Your task to perform on an android device: manage bookmarks in the chrome app Image 0: 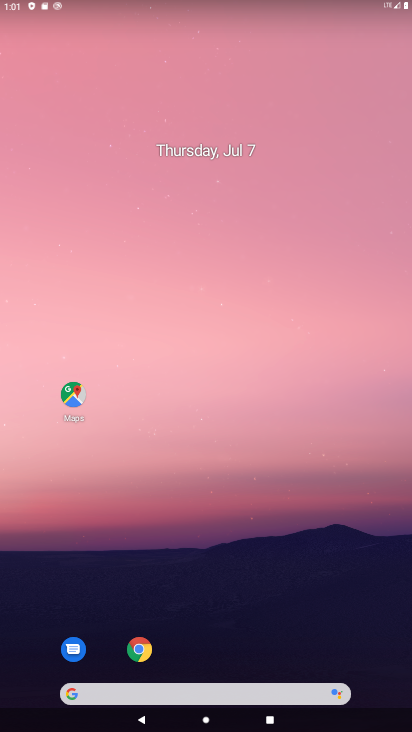
Step 0: press home button
Your task to perform on an android device: manage bookmarks in the chrome app Image 1: 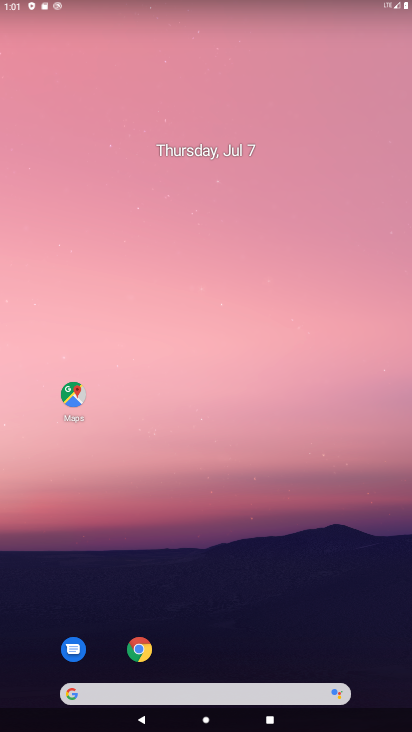
Step 1: drag from (306, 556) to (288, 130)
Your task to perform on an android device: manage bookmarks in the chrome app Image 2: 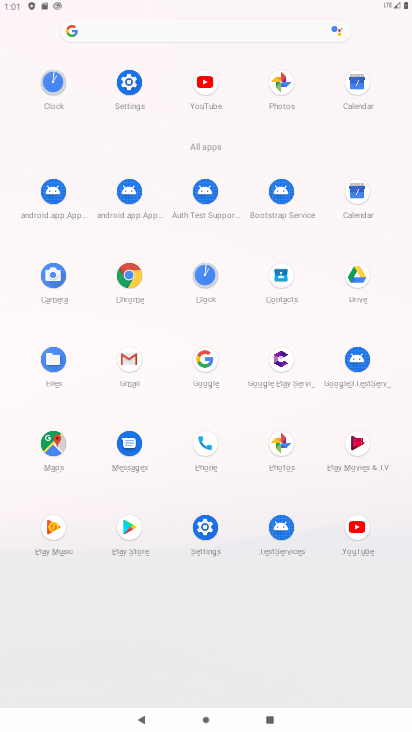
Step 2: click (120, 283)
Your task to perform on an android device: manage bookmarks in the chrome app Image 3: 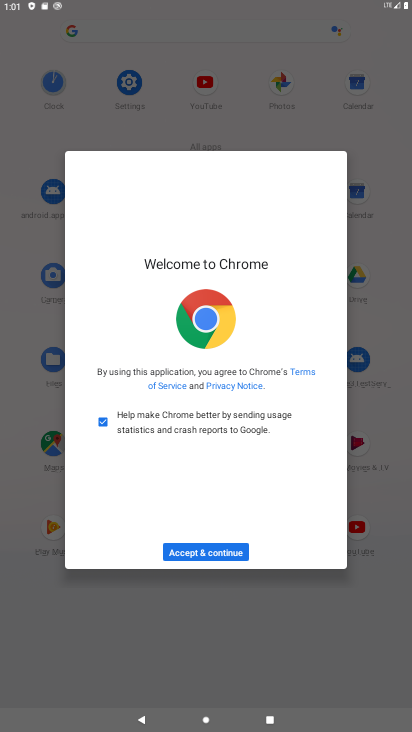
Step 3: click (191, 557)
Your task to perform on an android device: manage bookmarks in the chrome app Image 4: 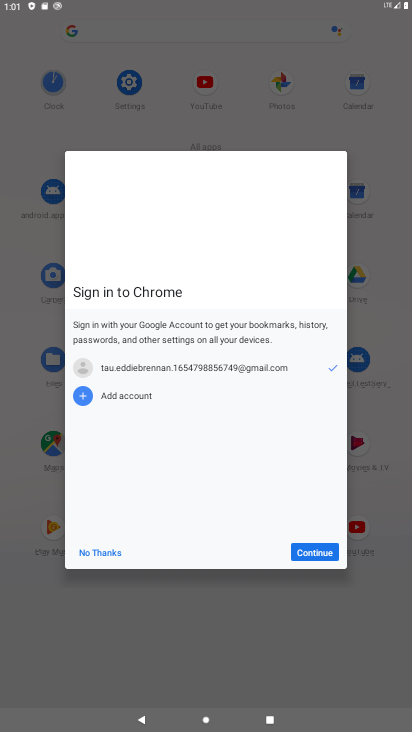
Step 4: click (325, 554)
Your task to perform on an android device: manage bookmarks in the chrome app Image 5: 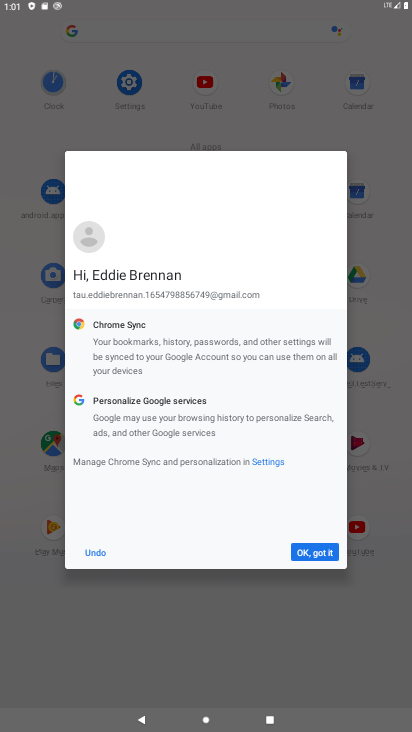
Step 5: click (325, 554)
Your task to perform on an android device: manage bookmarks in the chrome app Image 6: 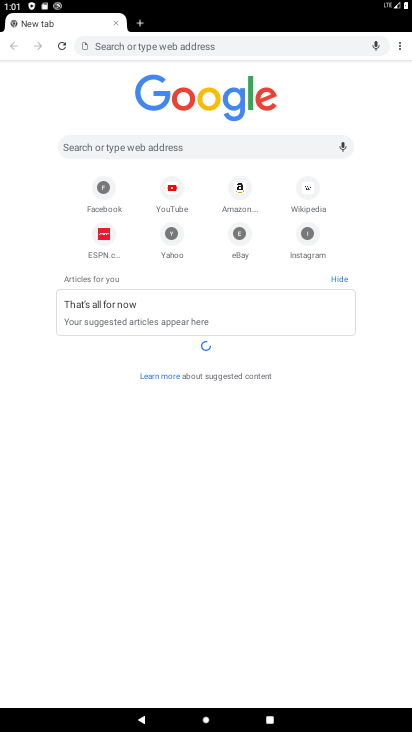
Step 6: click (400, 47)
Your task to perform on an android device: manage bookmarks in the chrome app Image 7: 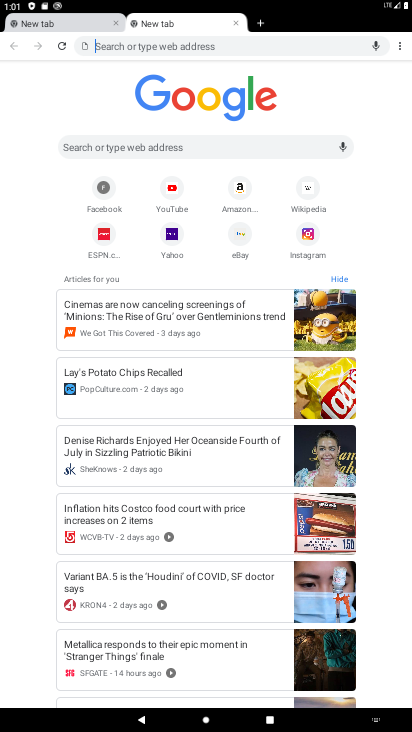
Step 7: click (400, 47)
Your task to perform on an android device: manage bookmarks in the chrome app Image 8: 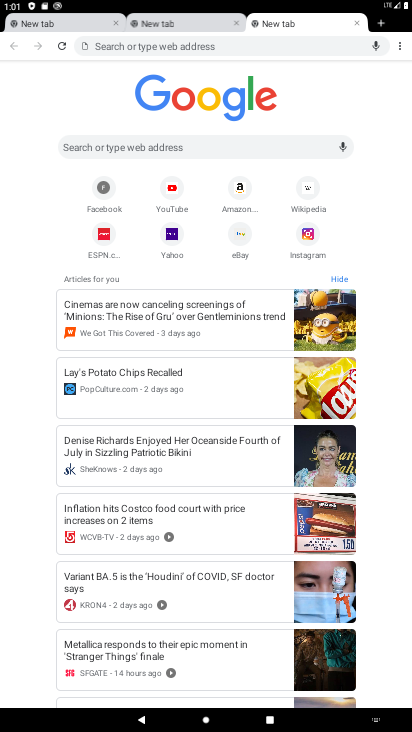
Step 8: drag from (397, 43) to (326, 95)
Your task to perform on an android device: manage bookmarks in the chrome app Image 9: 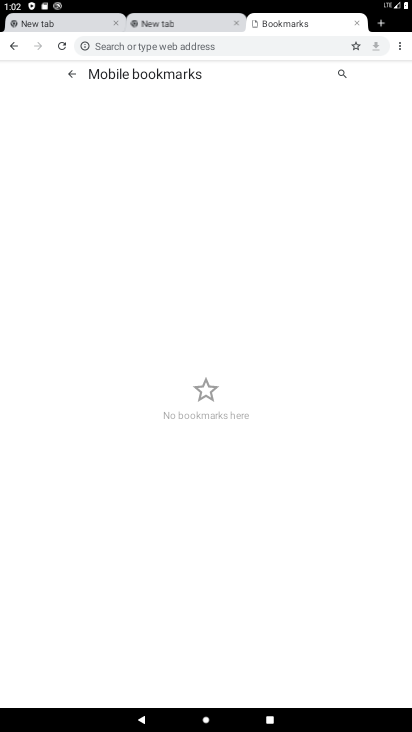
Step 9: click (166, 71)
Your task to perform on an android device: manage bookmarks in the chrome app Image 10: 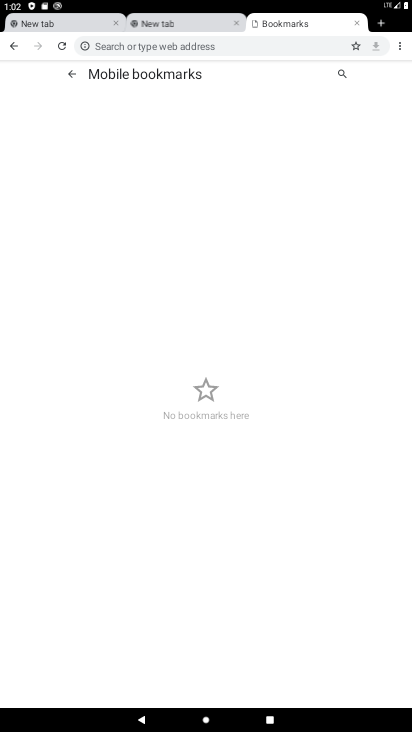
Step 10: task complete